Your task to perform on an android device: Show me the alarms in the clock app Image 0: 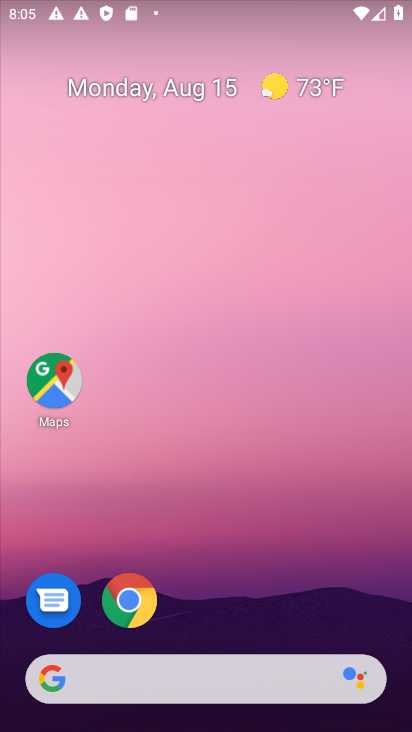
Step 0: drag from (231, 644) to (228, 107)
Your task to perform on an android device: Show me the alarms in the clock app Image 1: 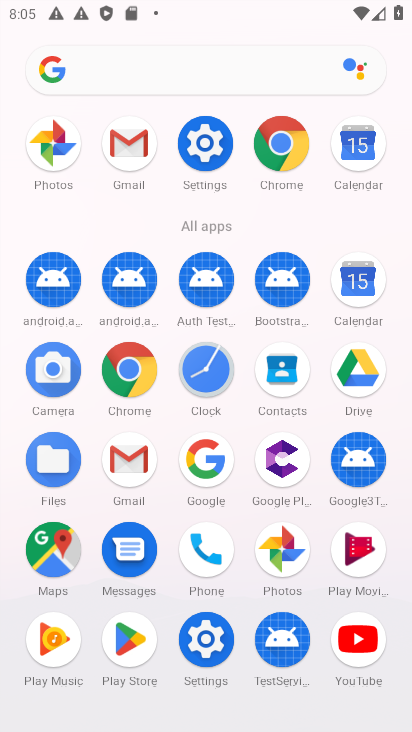
Step 1: click (208, 369)
Your task to perform on an android device: Show me the alarms in the clock app Image 2: 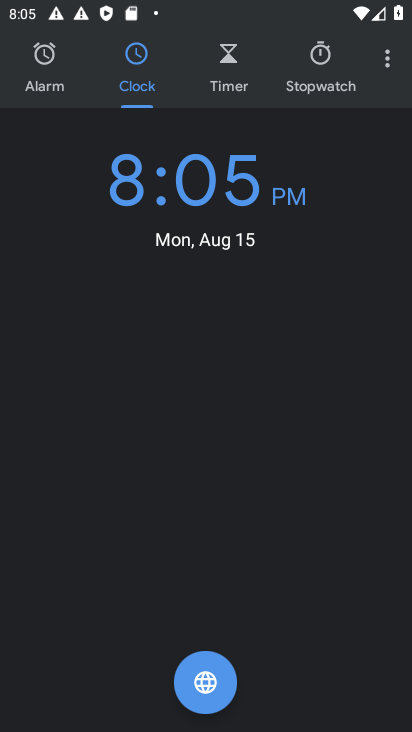
Step 2: click (58, 65)
Your task to perform on an android device: Show me the alarms in the clock app Image 3: 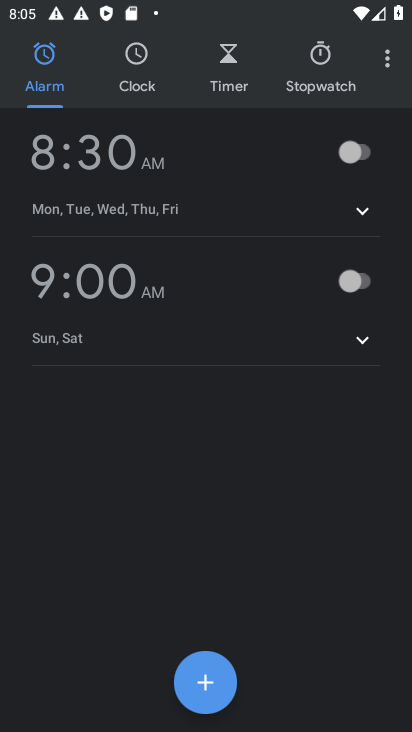
Step 3: task complete